Your task to perform on an android device: turn notification dots off Image 0: 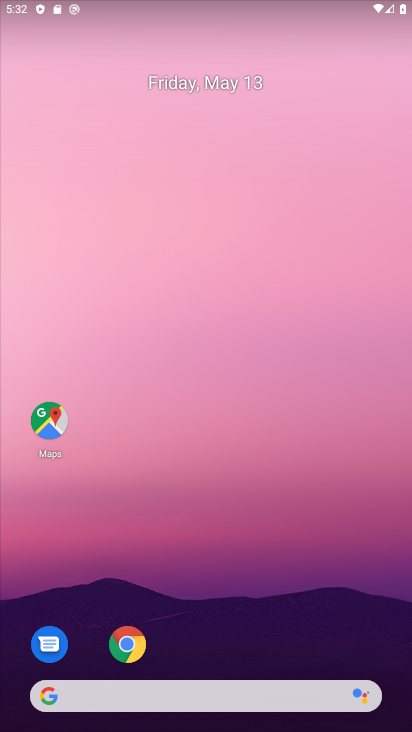
Step 0: drag from (213, 644) to (213, 4)
Your task to perform on an android device: turn notification dots off Image 1: 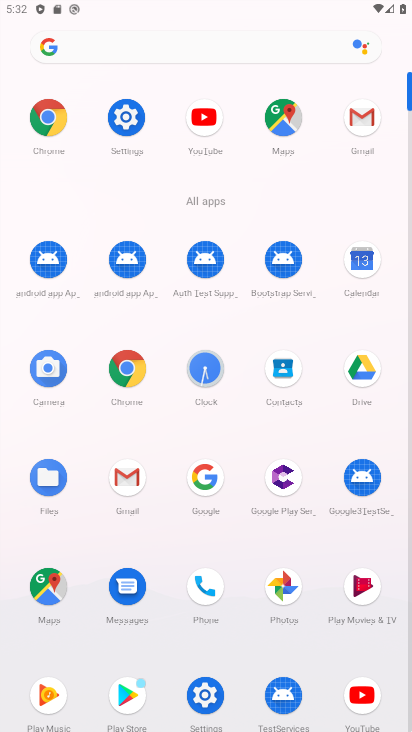
Step 1: click (129, 130)
Your task to perform on an android device: turn notification dots off Image 2: 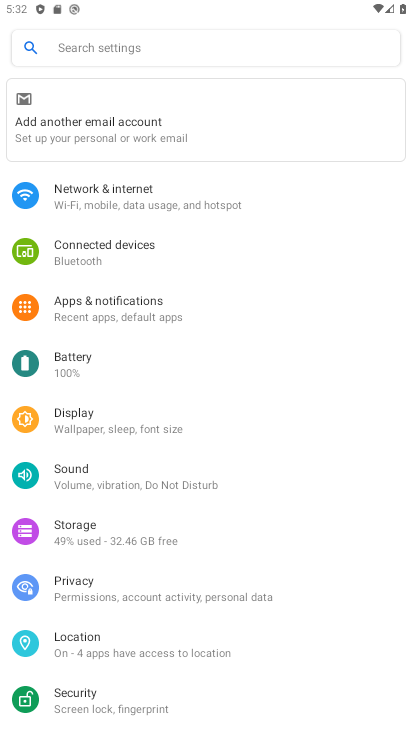
Step 2: click (124, 315)
Your task to perform on an android device: turn notification dots off Image 3: 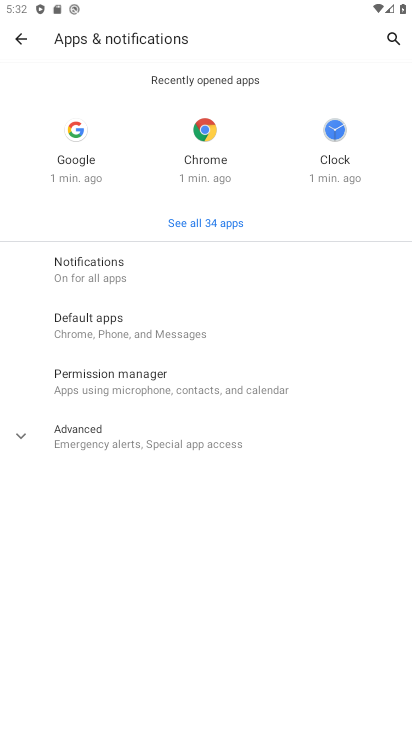
Step 3: click (97, 277)
Your task to perform on an android device: turn notification dots off Image 4: 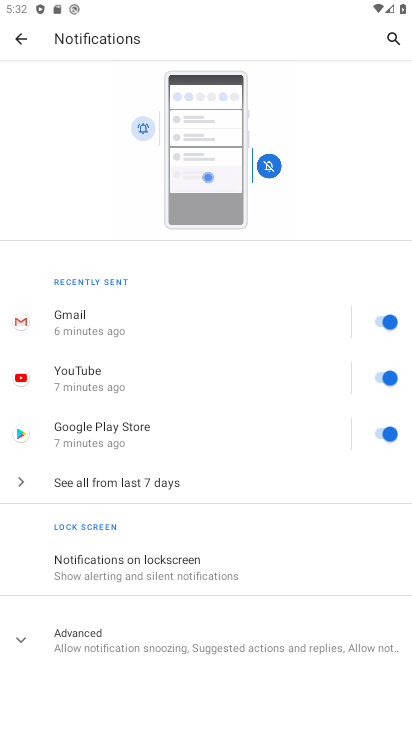
Step 4: click (177, 646)
Your task to perform on an android device: turn notification dots off Image 5: 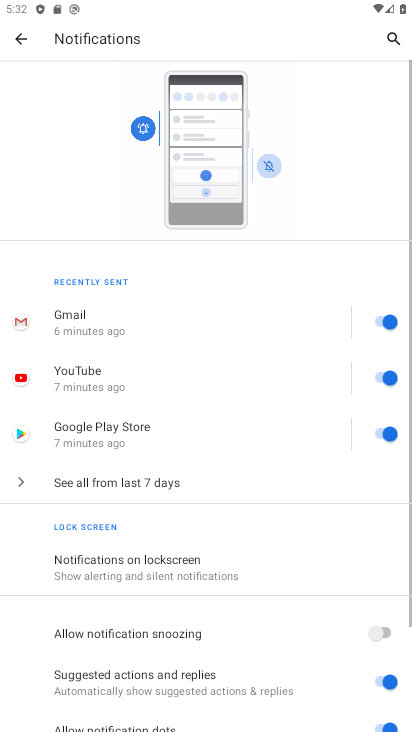
Step 5: drag from (180, 644) to (217, 371)
Your task to perform on an android device: turn notification dots off Image 6: 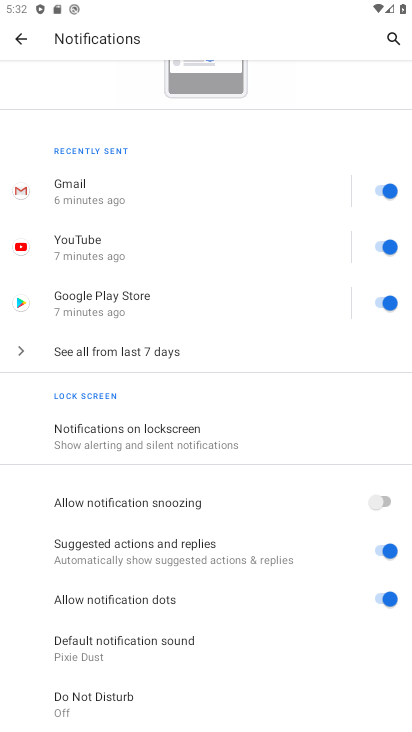
Step 6: click (376, 600)
Your task to perform on an android device: turn notification dots off Image 7: 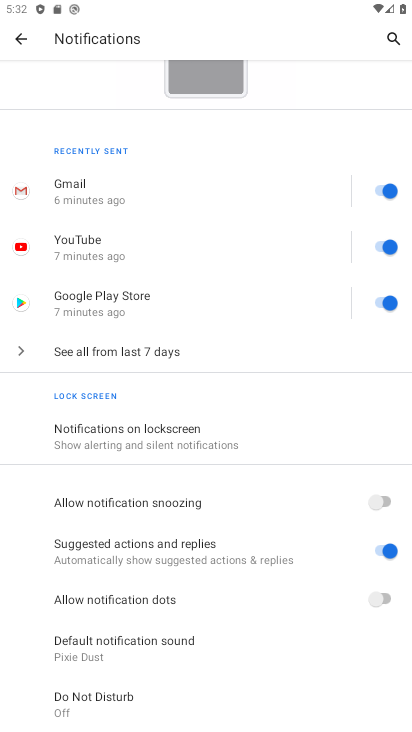
Step 7: task complete